Your task to perform on an android device: check storage Image 0: 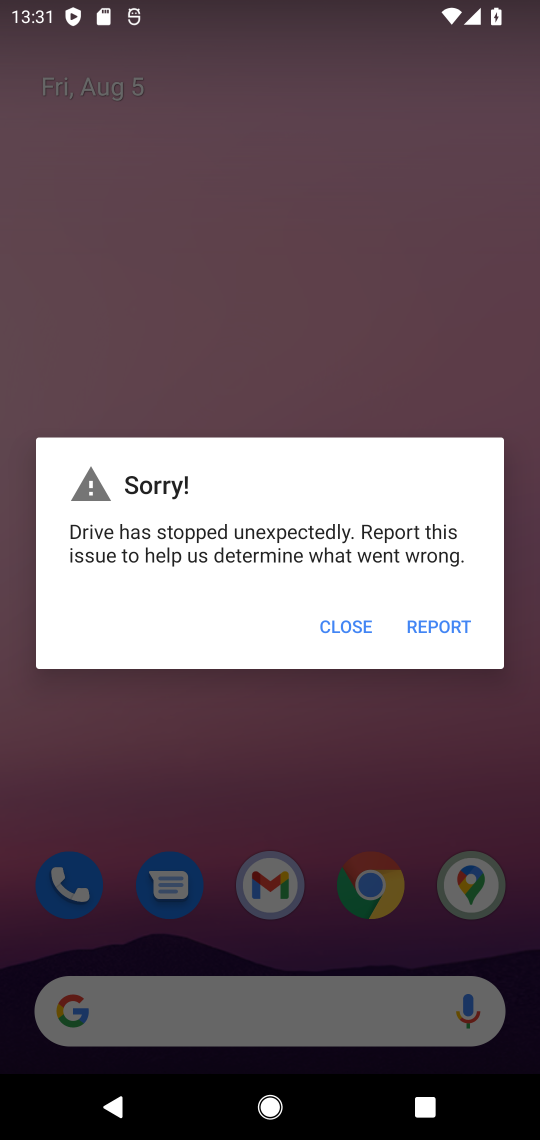
Step 0: click (352, 616)
Your task to perform on an android device: check storage Image 1: 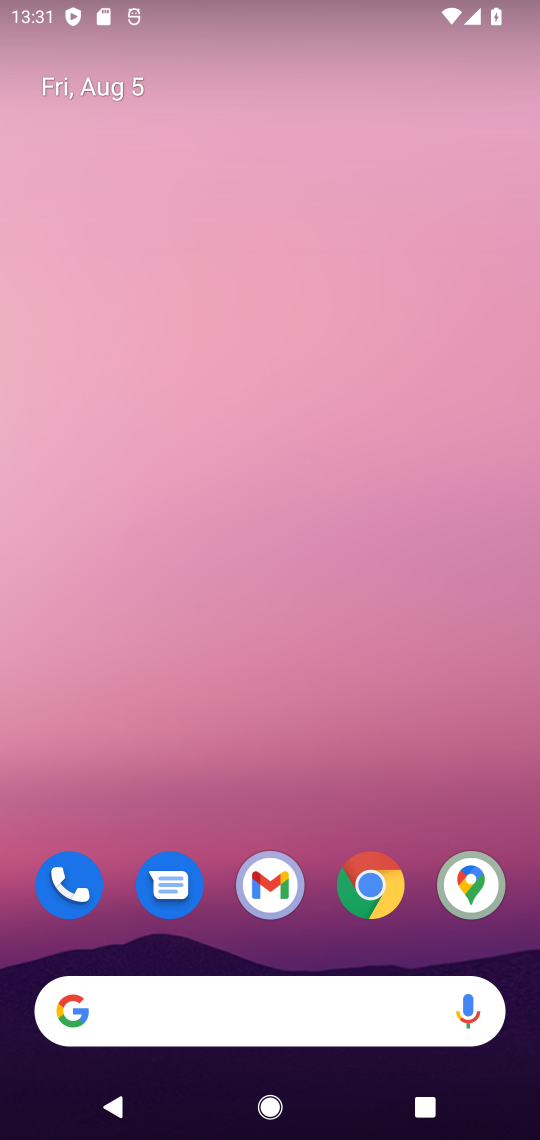
Step 1: drag from (250, 943) to (250, 373)
Your task to perform on an android device: check storage Image 2: 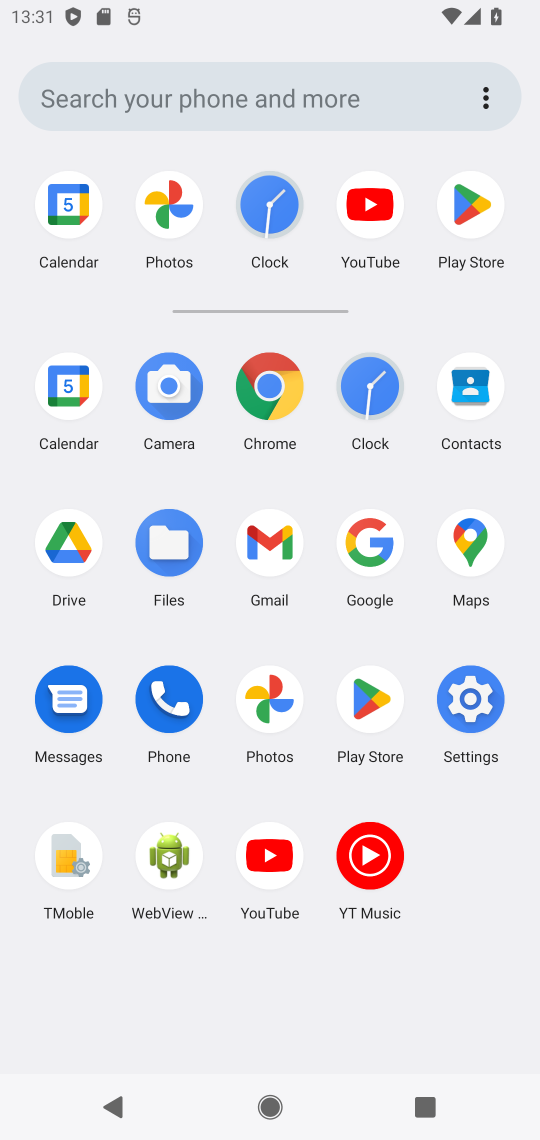
Step 2: click (465, 715)
Your task to perform on an android device: check storage Image 3: 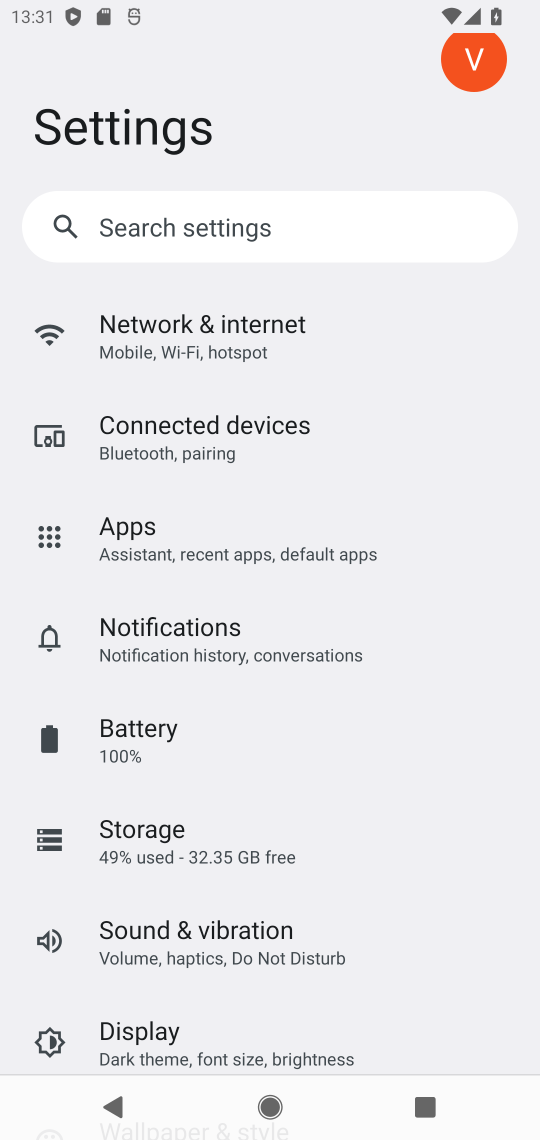
Step 3: click (188, 830)
Your task to perform on an android device: check storage Image 4: 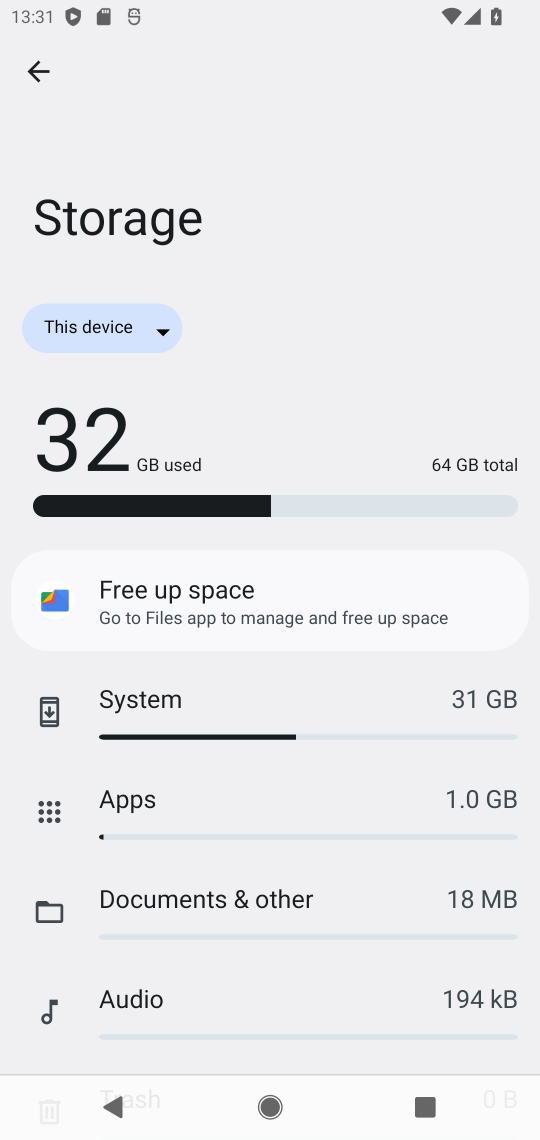
Step 4: task complete